Your task to perform on an android device: Toggle the flashlight Image 0: 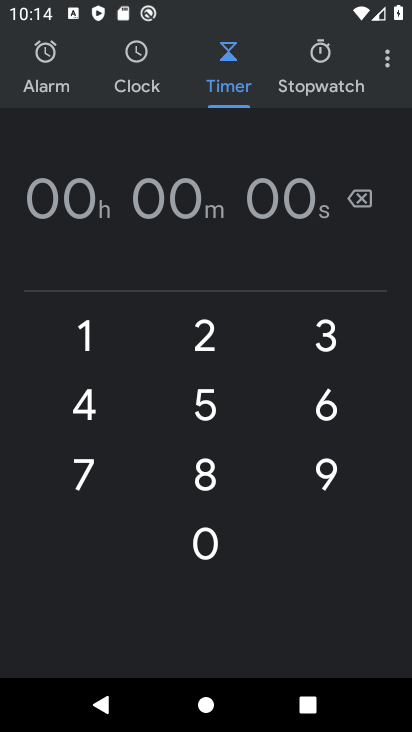
Step 0: press home button
Your task to perform on an android device: Toggle the flashlight Image 1: 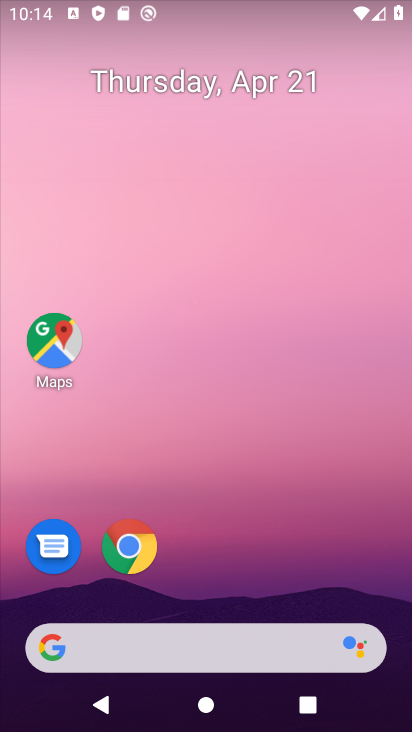
Step 1: drag from (232, 28) to (199, 381)
Your task to perform on an android device: Toggle the flashlight Image 2: 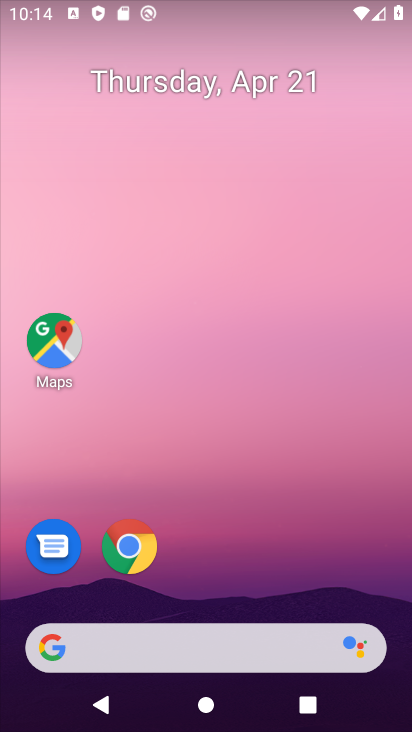
Step 2: drag from (232, 27) to (207, 412)
Your task to perform on an android device: Toggle the flashlight Image 3: 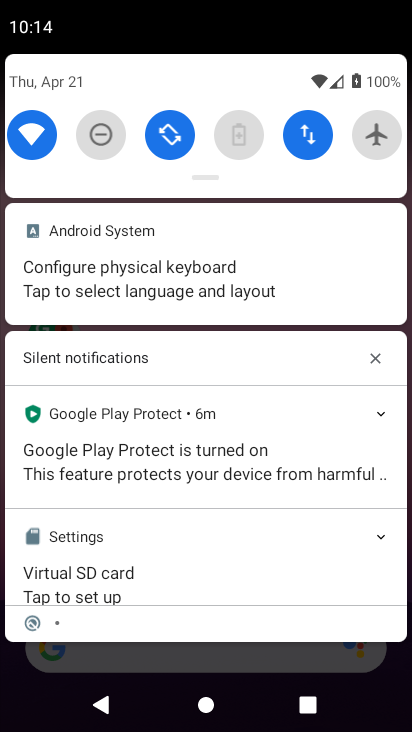
Step 3: drag from (213, 174) to (235, 449)
Your task to perform on an android device: Toggle the flashlight Image 4: 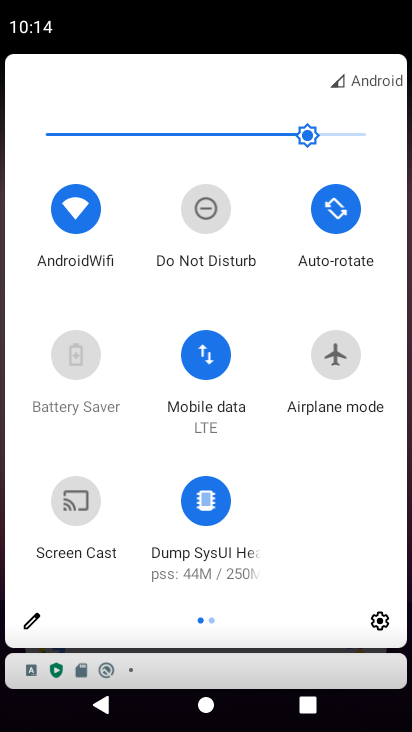
Step 4: drag from (262, 604) to (241, 523)
Your task to perform on an android device: Toggle the flashlight Image 5: 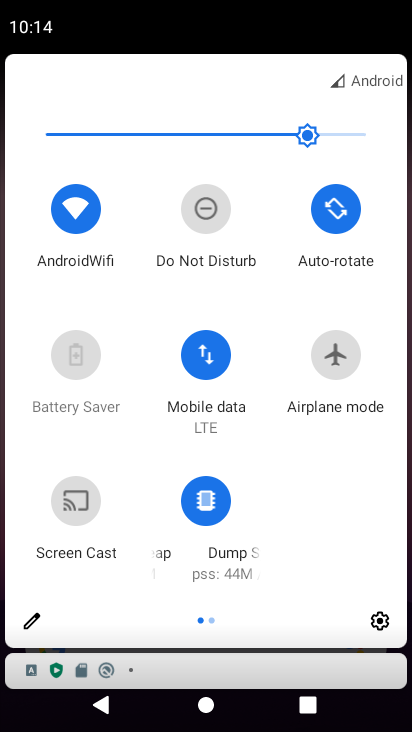
Step 5: click (28, 621)
Your task to perform on an android device: Toggle the flashlight Image 6: 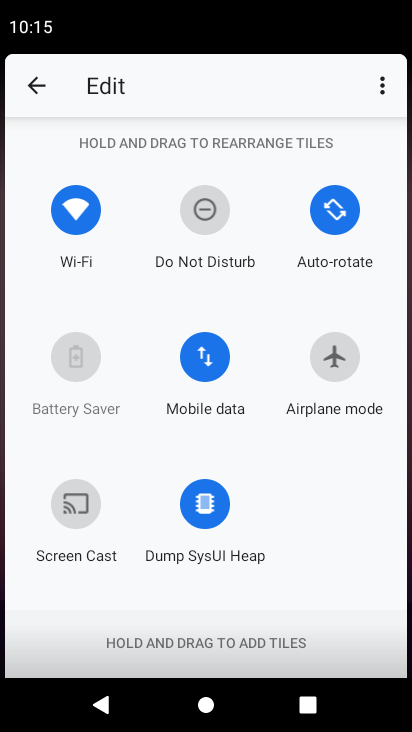
Step 6: task complete